Your task to perform on an android device: Open maps Image 0: 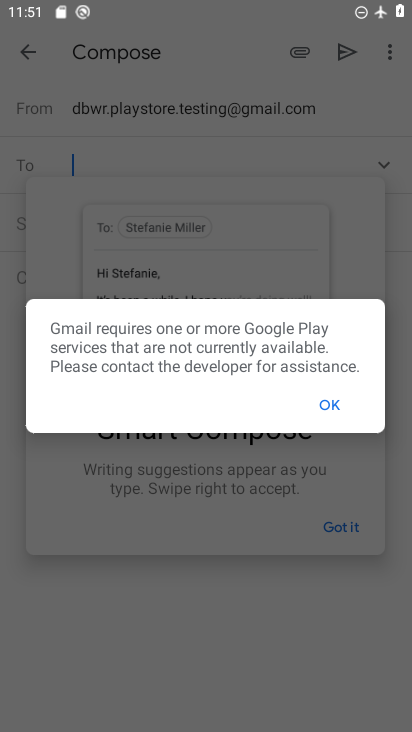
Step 0: press home button
Your task to perform on an android device: Open maps Image 1: 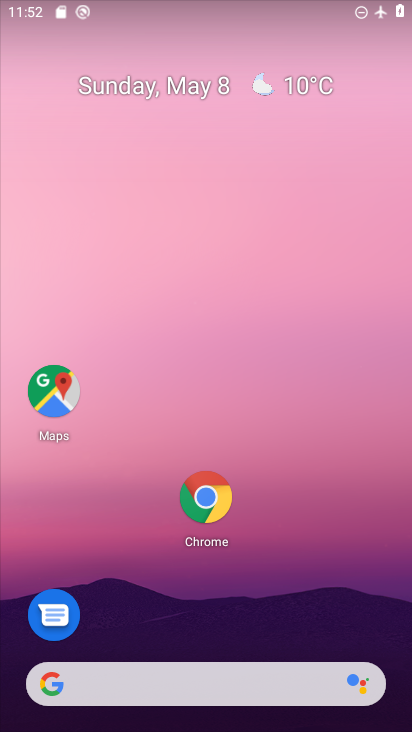
Step 1: drag from (303, 582) to (356, 44)
Your task to perform on an android device: Open maps Image 2: 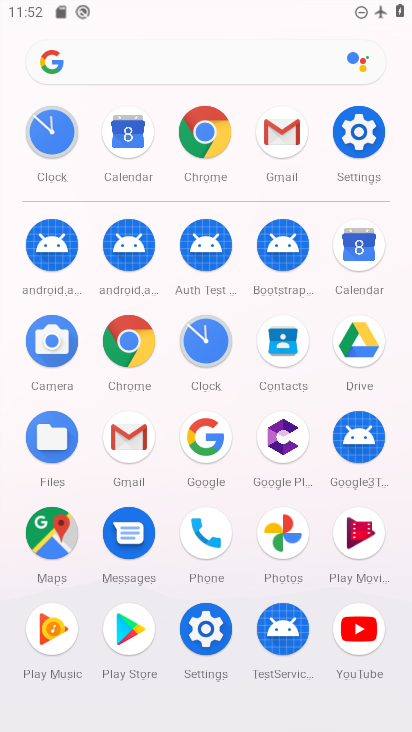
Step 2: click (50, 527)
Your task to perform on an android device: Open maps Image 3: 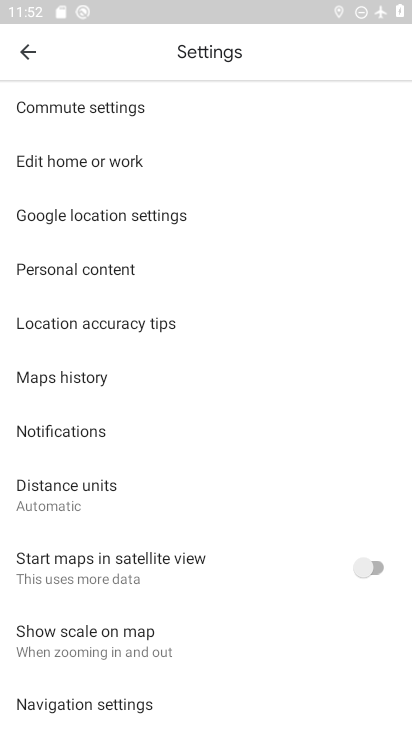
Step 3: task complete